Your task to perform on an android device: Open Wikipedia Image 0: 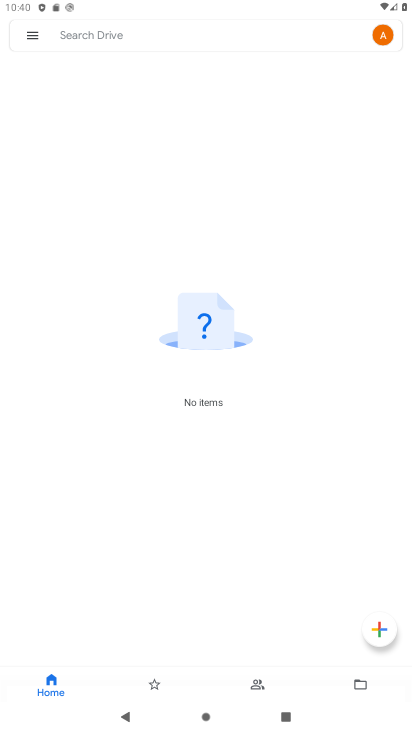
Step 0: press home button
Your task to perform on an android device: Open Wikipedia Image 1: 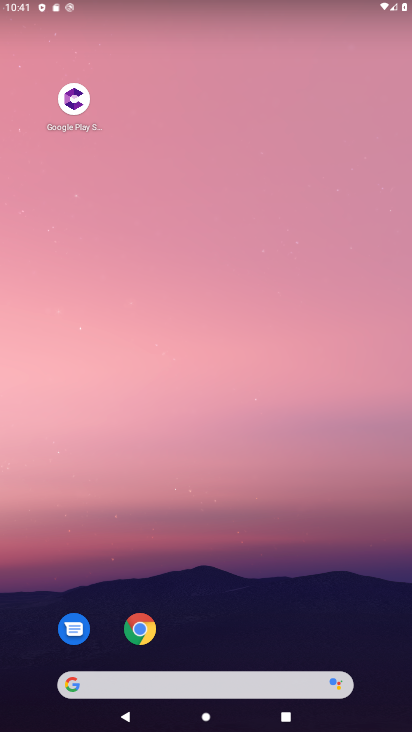
Step 1: click (135, 630)
Your task to perform on an android device: Open Wikipedia Image 2: 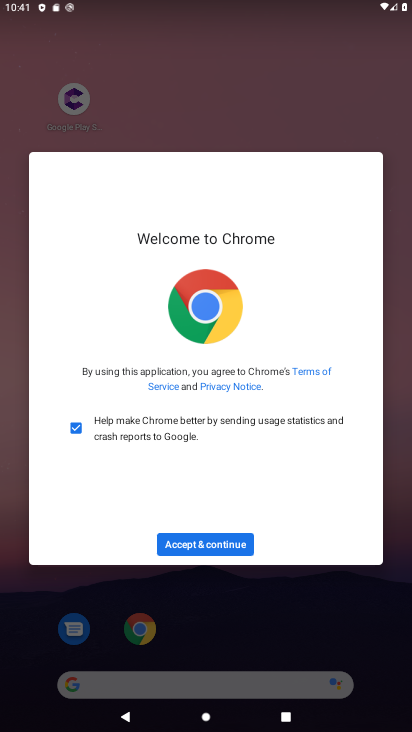
Step 2: click (235, 537)
Your task to perform on an android device: Open Wikipedia Image 3: 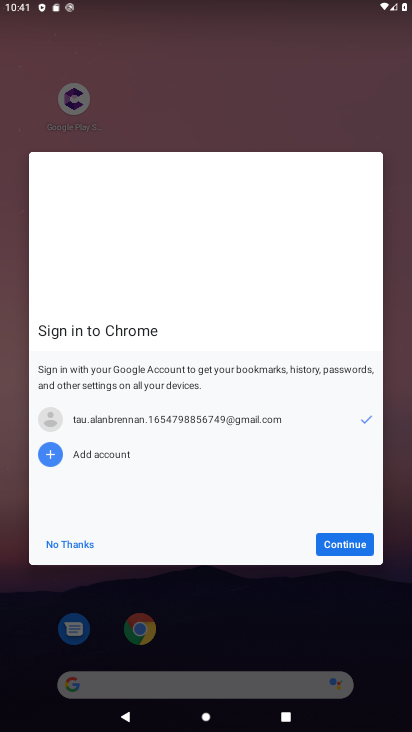
Step 3: click (338, 537)
Your task to perform on an android device: Open Wikipedia Image 4: 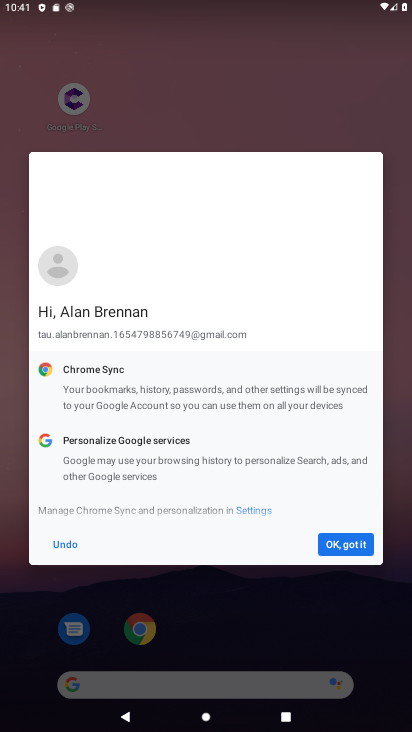
Step 4: click (338, 537)
Your task to perform on an android device: Open Wikipedia Image 5: 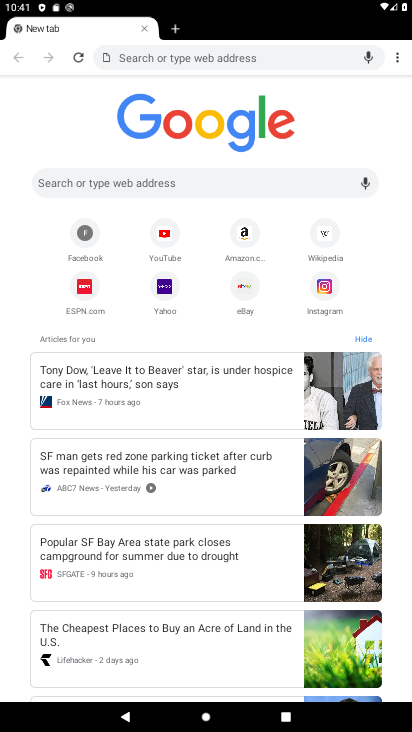
Step 5: click (318, 259)
Your task to perform on an android device: Open Wikipedia Image 6: 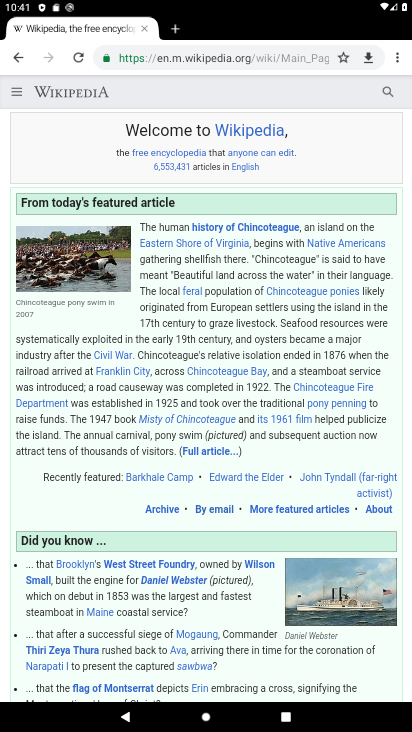
Step 6: task complete